Your task to perform on an android device: open sync settings in chrome Image 0: 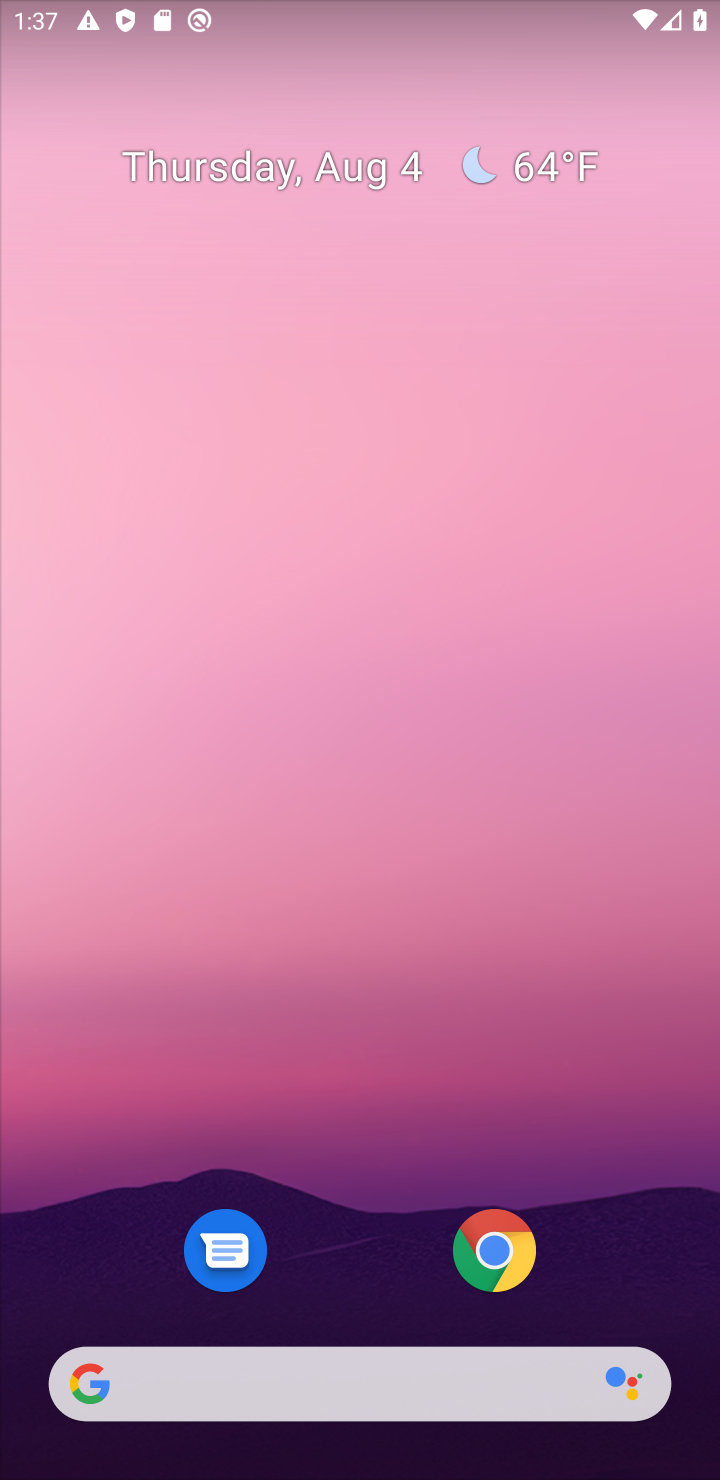
Step 0: click (464, 1242)
Your task to perform on an android device: open sync settings in chrome Image 1: 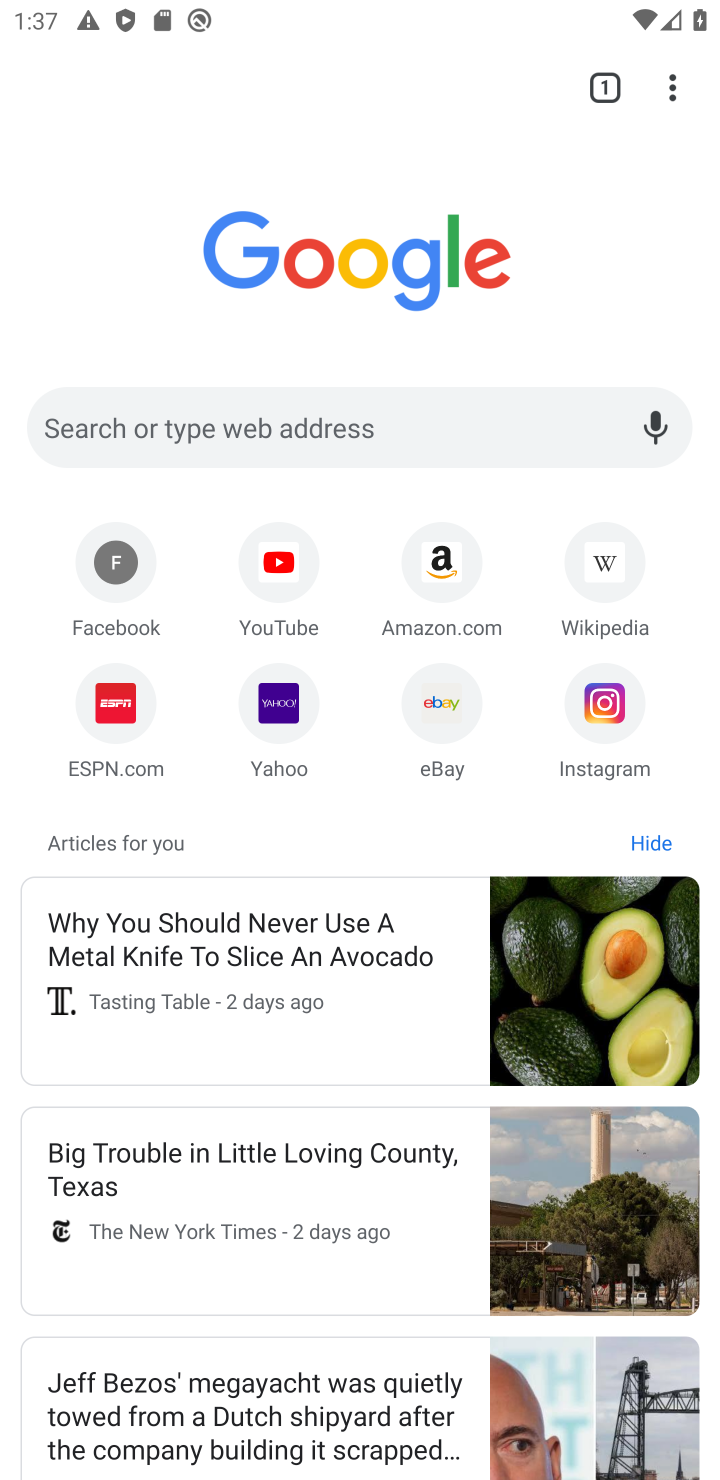
Step 1: click (661, 92)
Your task to perform on an android device: open sync settings in chrome Image 2: 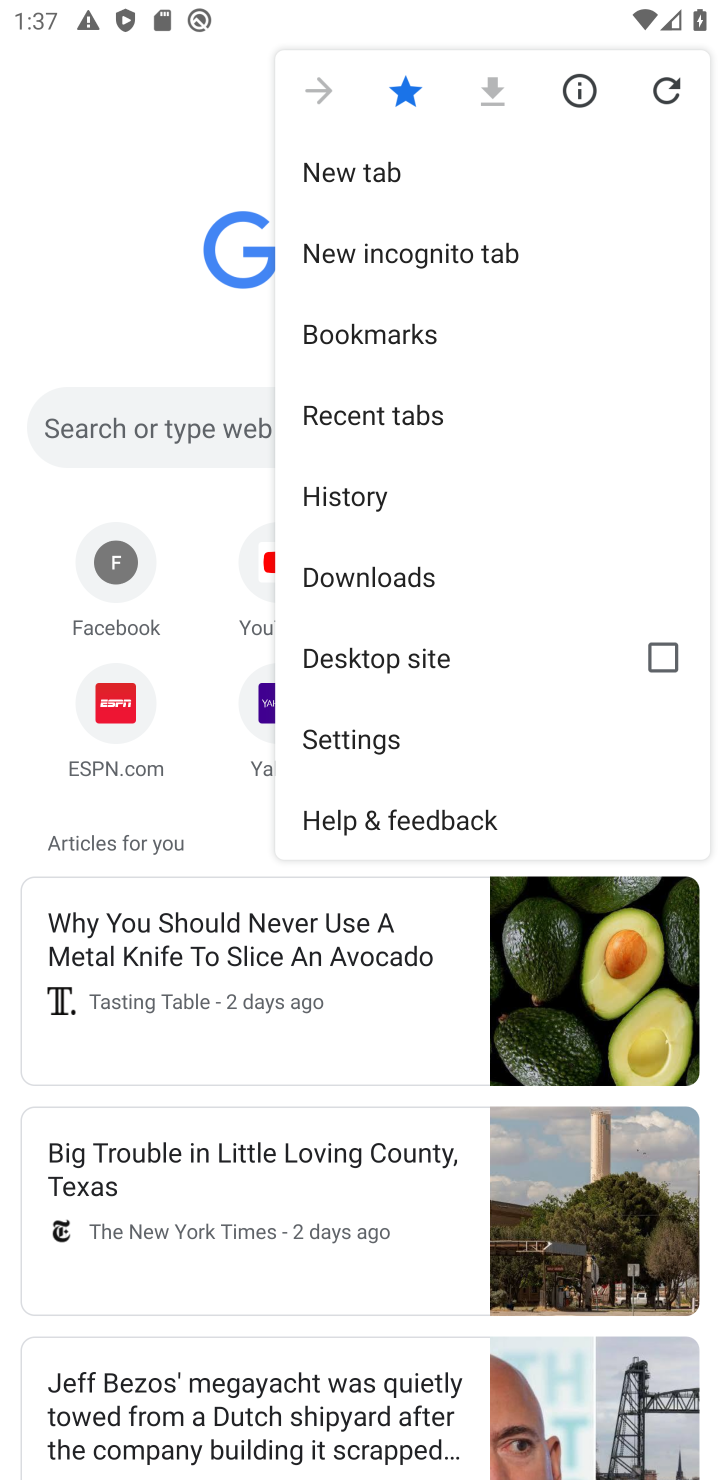
Step 2: click (402, 739)
Your task to perform on an android device: open sync settings in chrome Image 3: 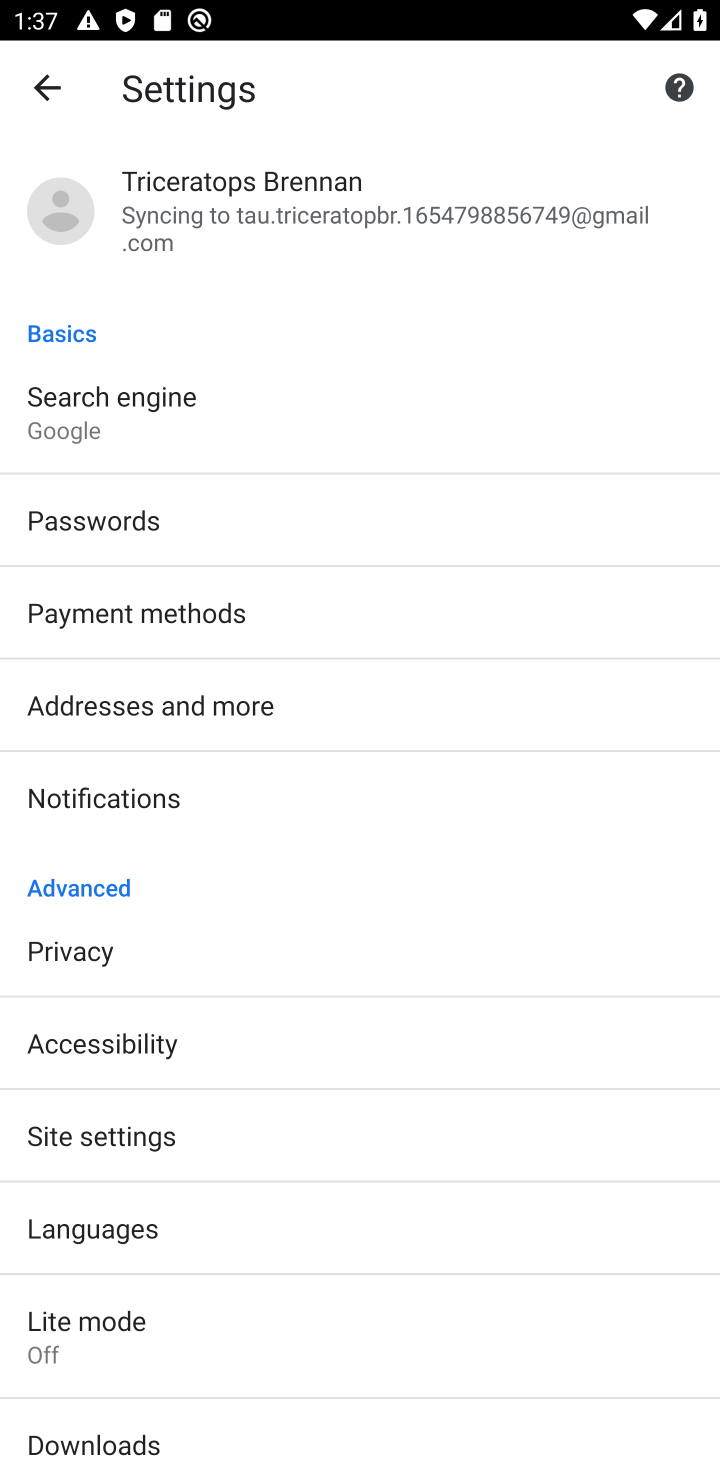
Step 3: click (513, 206)
Your task to perform on an android device: open sync settings in chrome Image 4: 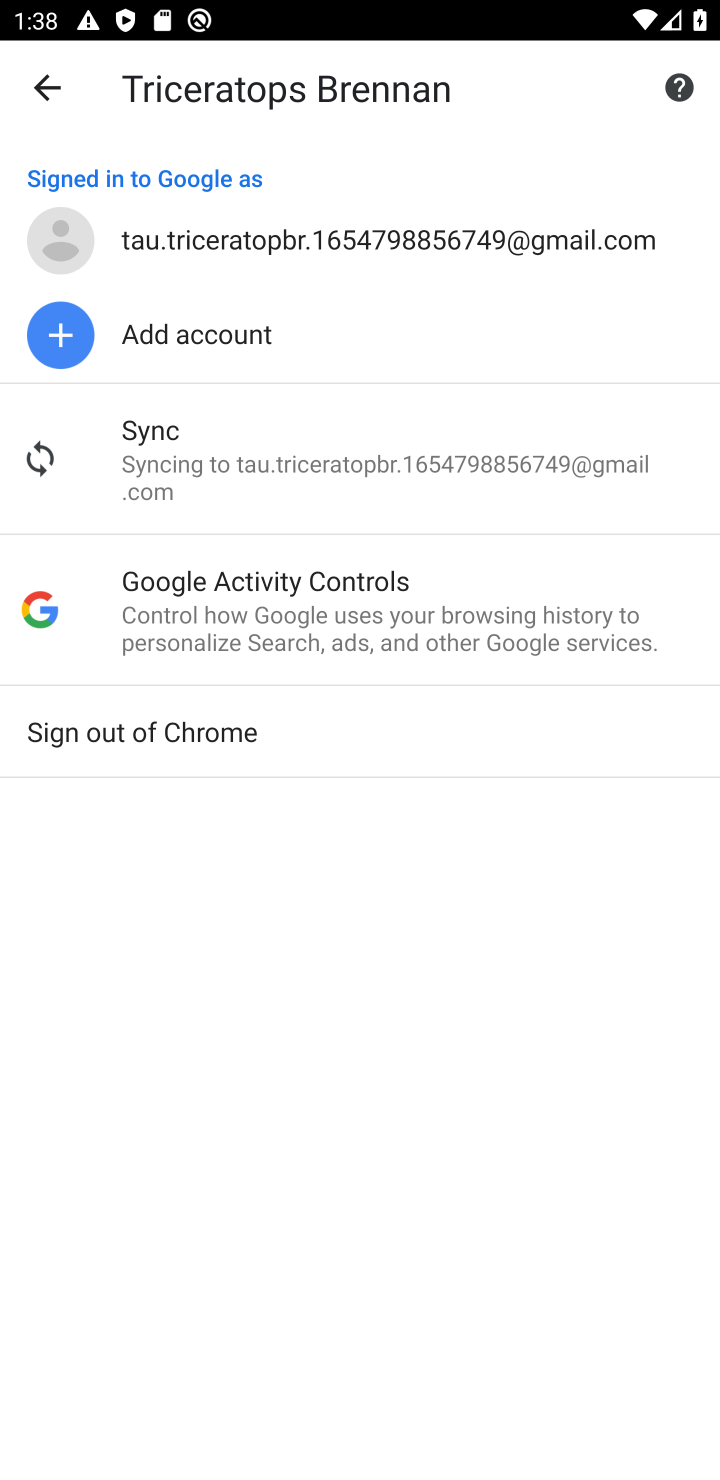
Step 4: click (392, 482)
Your task to perform on an android device: open sync settings in chrome Image 5: 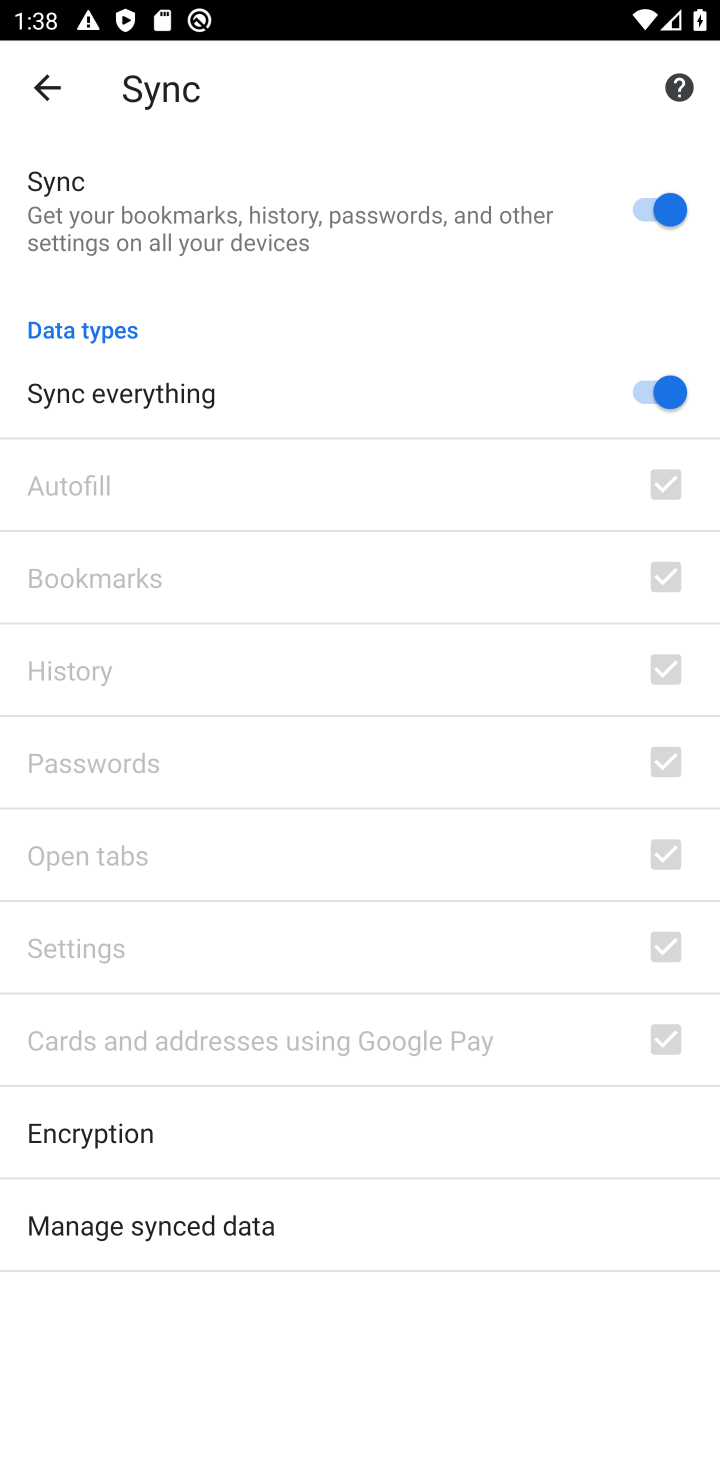
Step 5: task complete